Your task to perform on an android device: turn on bluetooth scan Image 0: 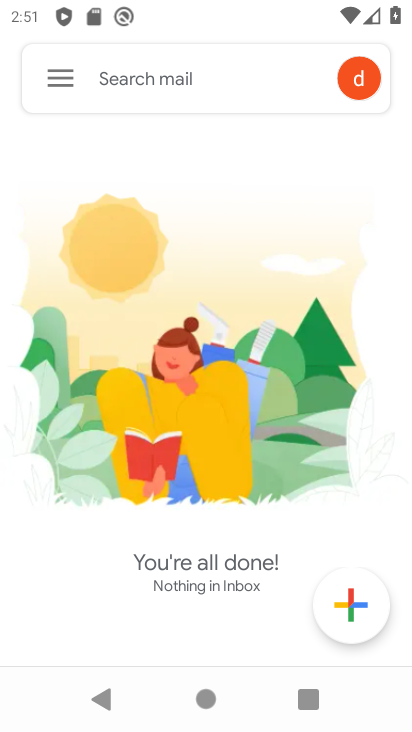
Step 0: press home button
Your task to perform on an android device: turn on bluetooth scan Image 1: 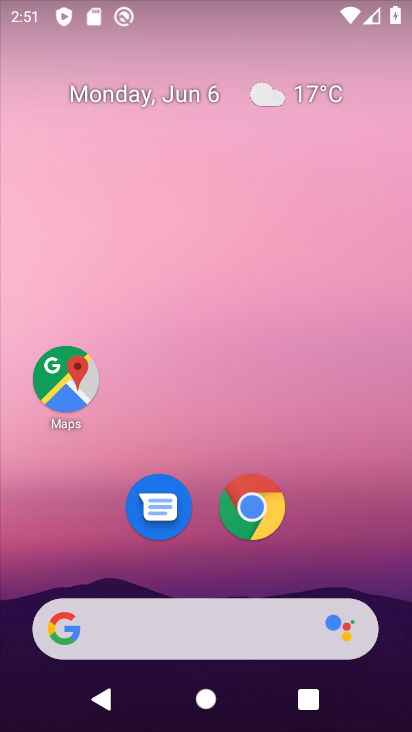
Step 1: drag from (359, 532) to (269, 170)
Your task to perform on an android device: turn on bluetooth scan Image 2: 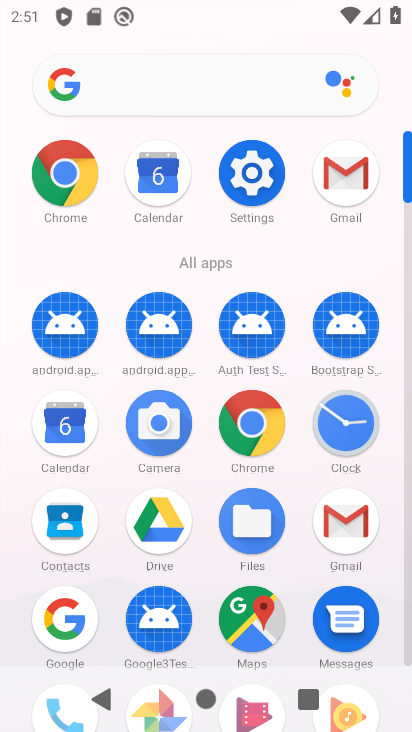
Step 2: click (263, 174)
Your task to perform on an android device: turn on bluetooth scan Image 3: 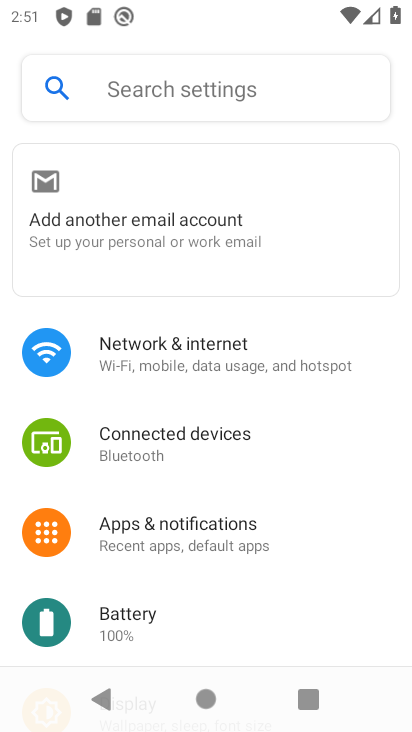
Step 3: drag from (324, 517) to (326, 231)
Your task to perform on an android device: turn on bluetooth scan Image 4: 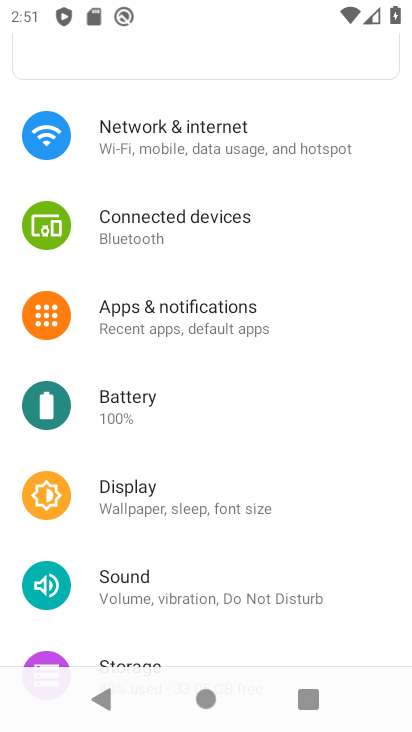
Step 4: drag from (307, 536) to (313, 202)
Your task to perform on an android device: turn on bluetooth scan Image 5: 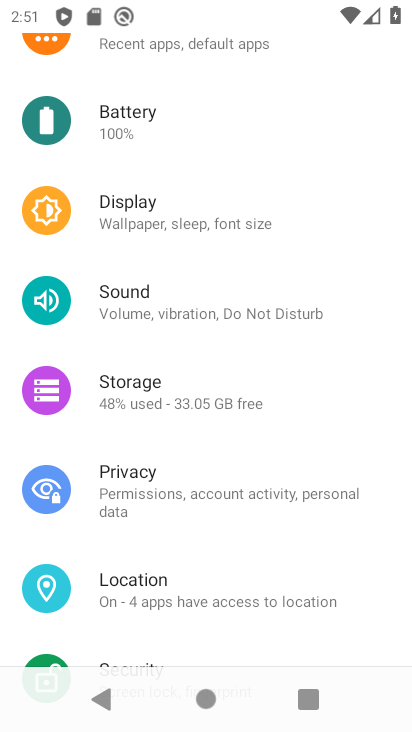
Step 5: drag from (210, 645) to (315, 158)
Your task to perform on an android device: turn on bluetooth scan Image 6: 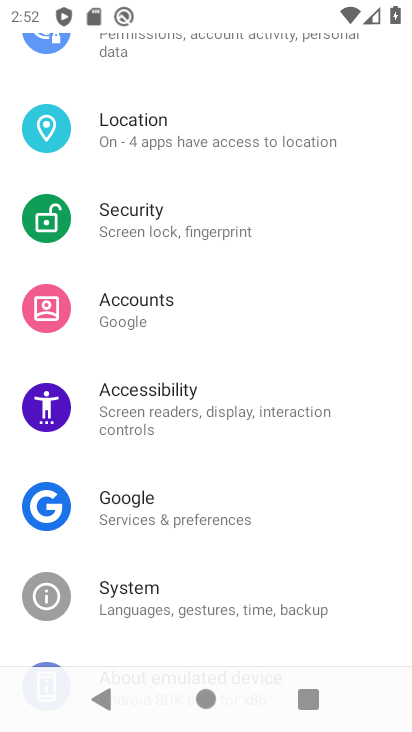
Step 6: drag from (245, 433) to (305, 341)
Your task to perform on an android device: turn on bluetooth scan Image 7: 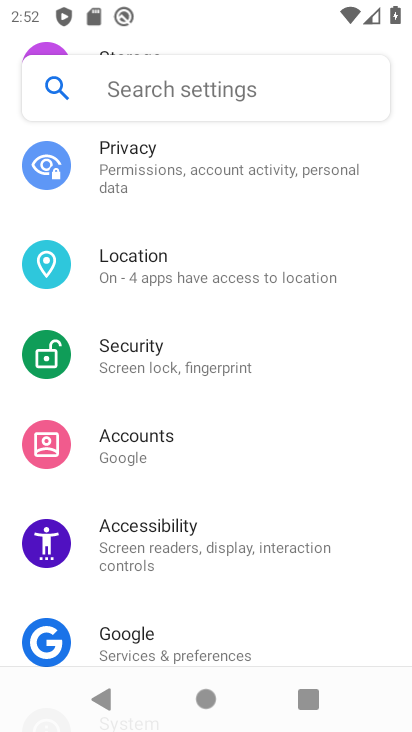
Step 7: click (264, 281)
Your task to perform on an android device: turn on bluetooth scan Image 8: 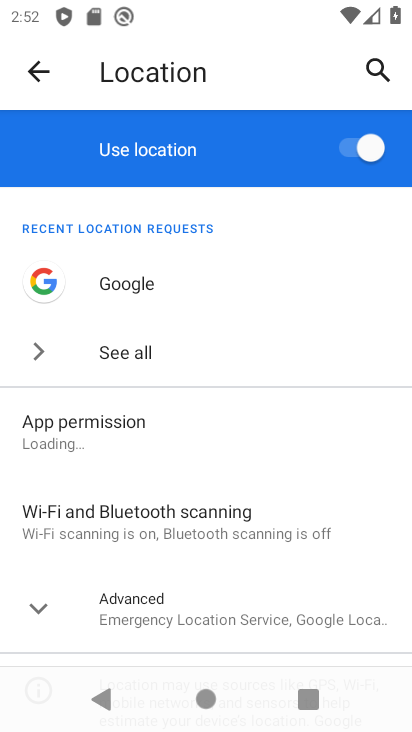
Step 8: click (228, 525)
Your task to perform on an android device: turn on bluetooth scan Image 9: 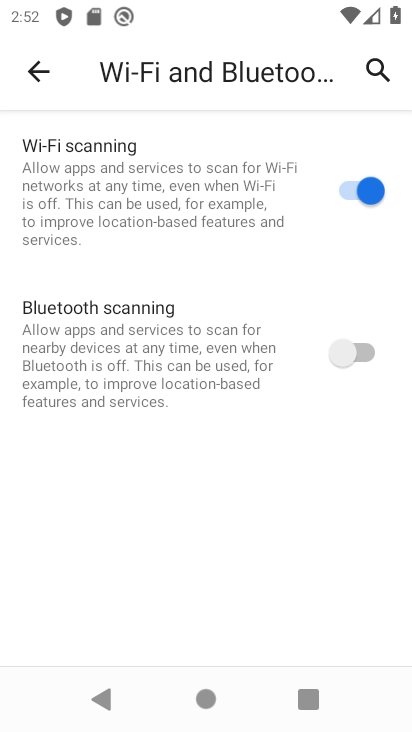
Step 9: click (367, 351)
Your task to perform on an android device: turn on bluetooth scan Image 10: 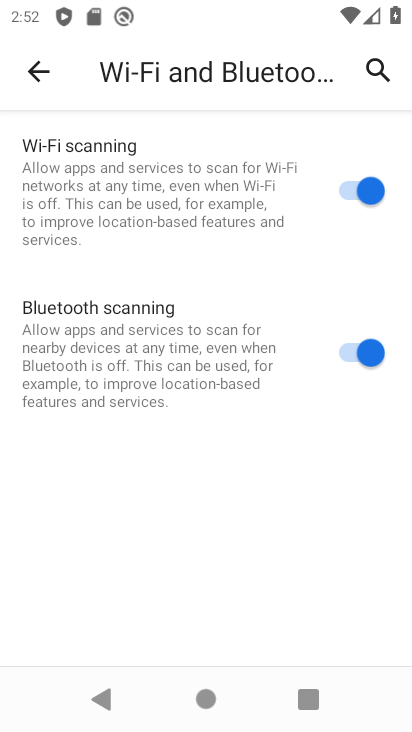
Step 10: task complete